Your task to perform on an android device: open app "Messenger Lite" Image 0: 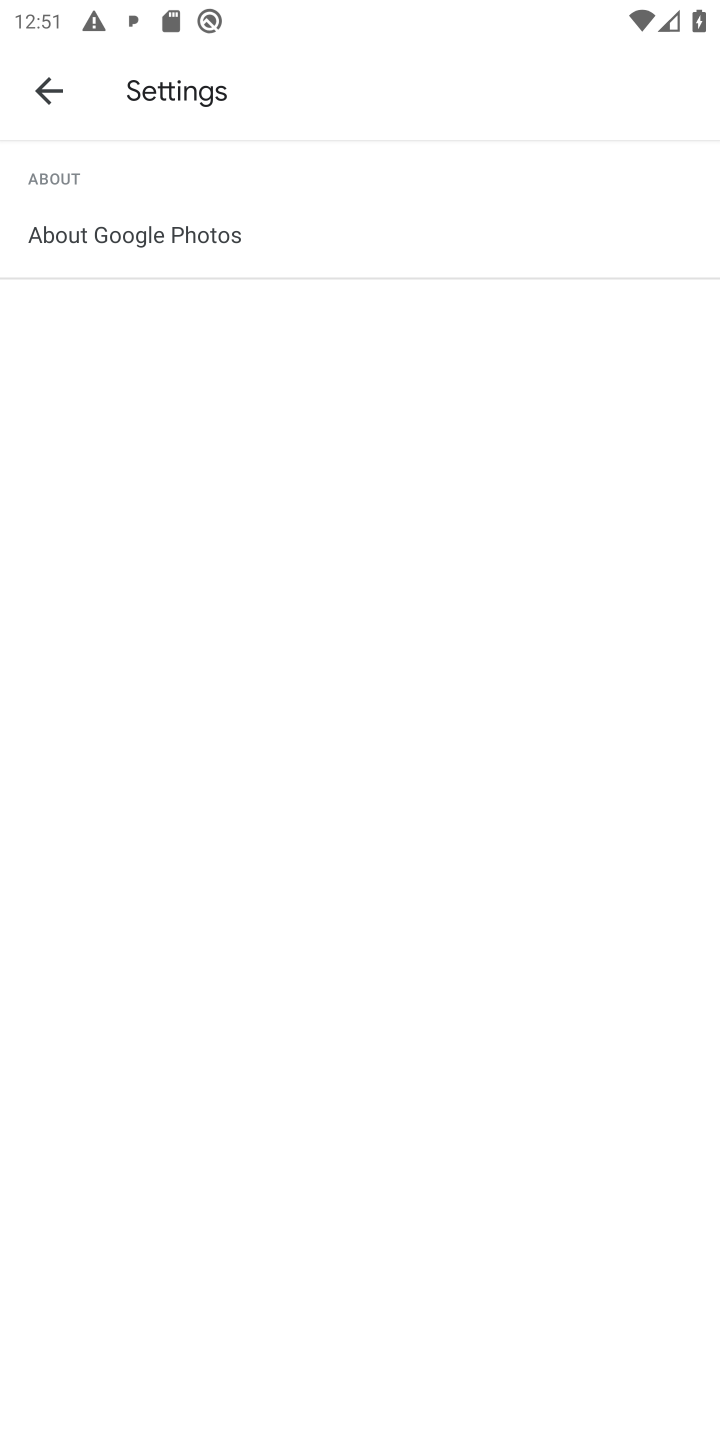
Step 0: press back button
Your task to perform on an android device: open app "Messenger Lite" Image 1: 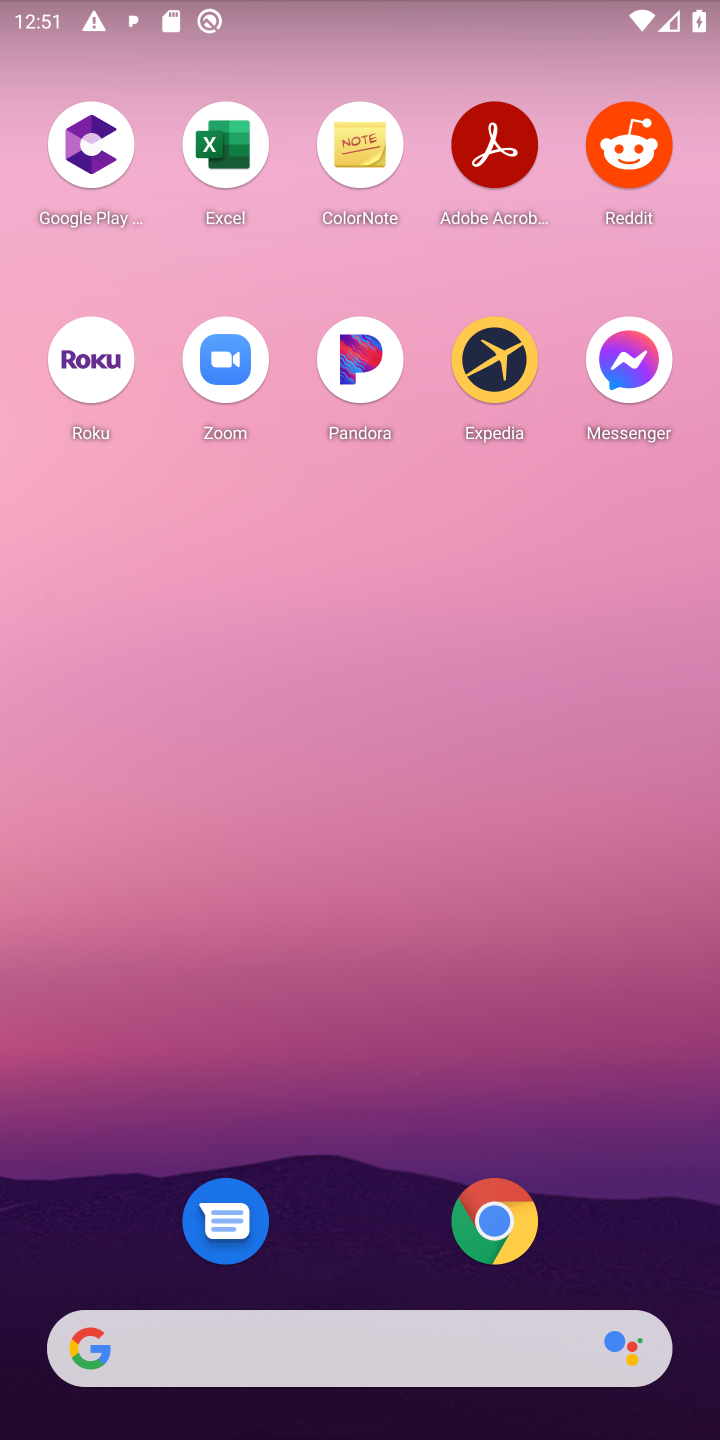
Step 1: drag from (373, 1111) to (478, 203)
Your task to perform on an android device: open app "Messenger Lite" Image 2: 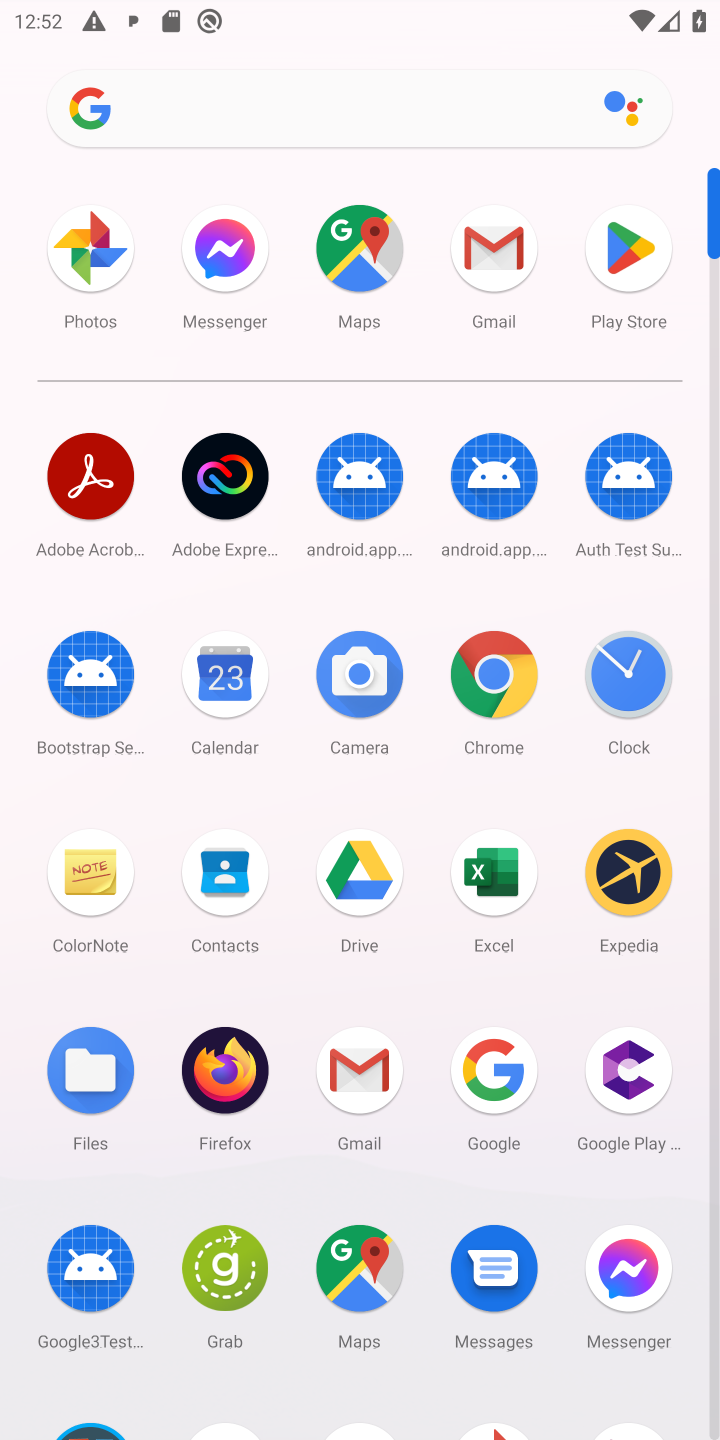
Step 2: click (615, 243)
Your task to perform on an android device: open app "Messenger Lite" Image 3: 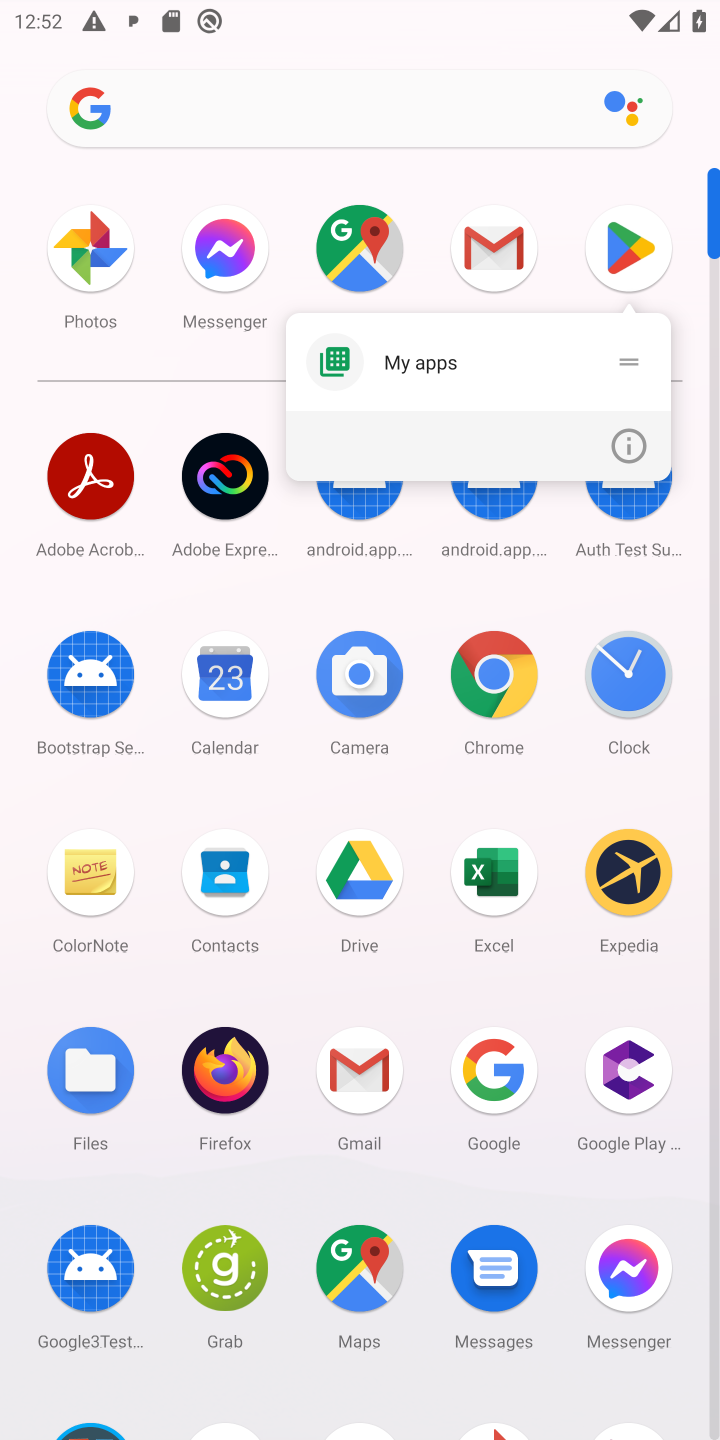
Step 3: click (620, 245)
Your task to perform on an android device: open app "Messenger Lite" Image 4: 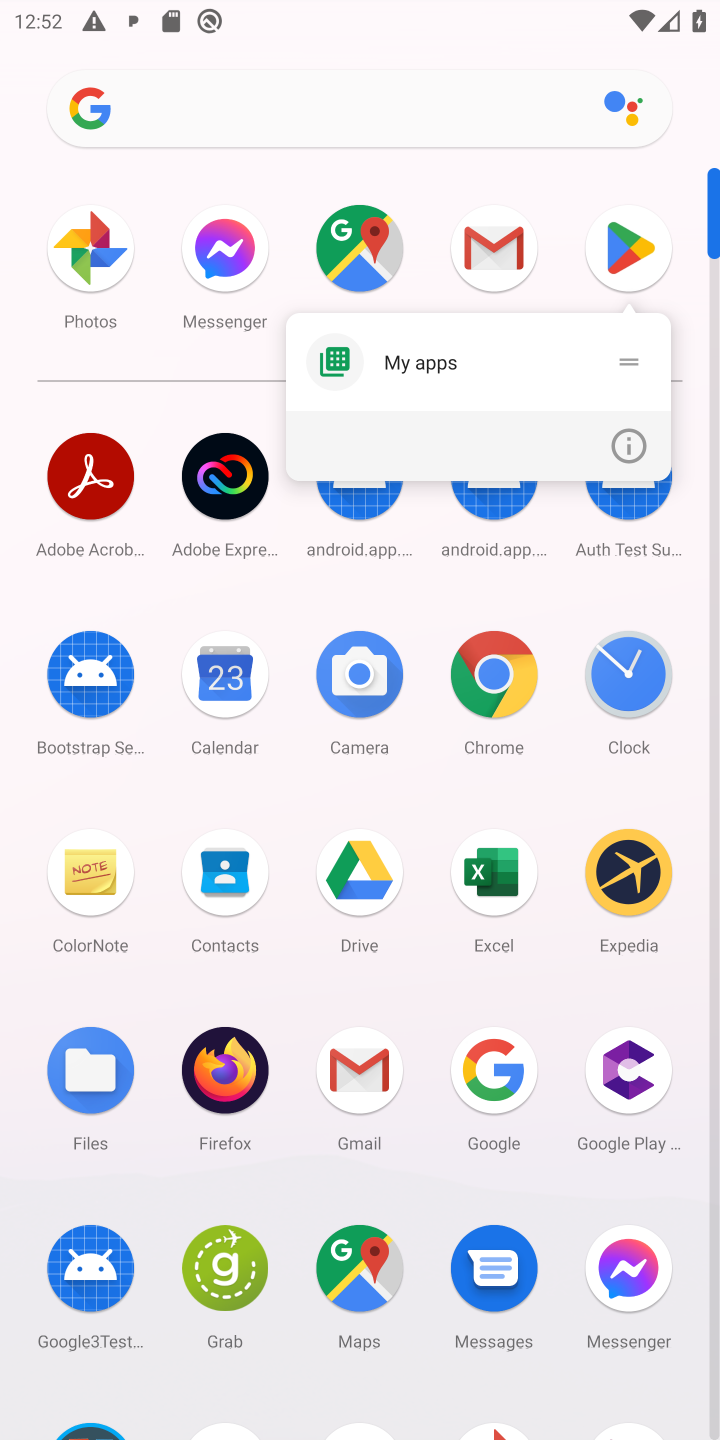
Step 4: click (621, 247)
Your task to perform on an android device: open app "Messenger Lite" Image 5: 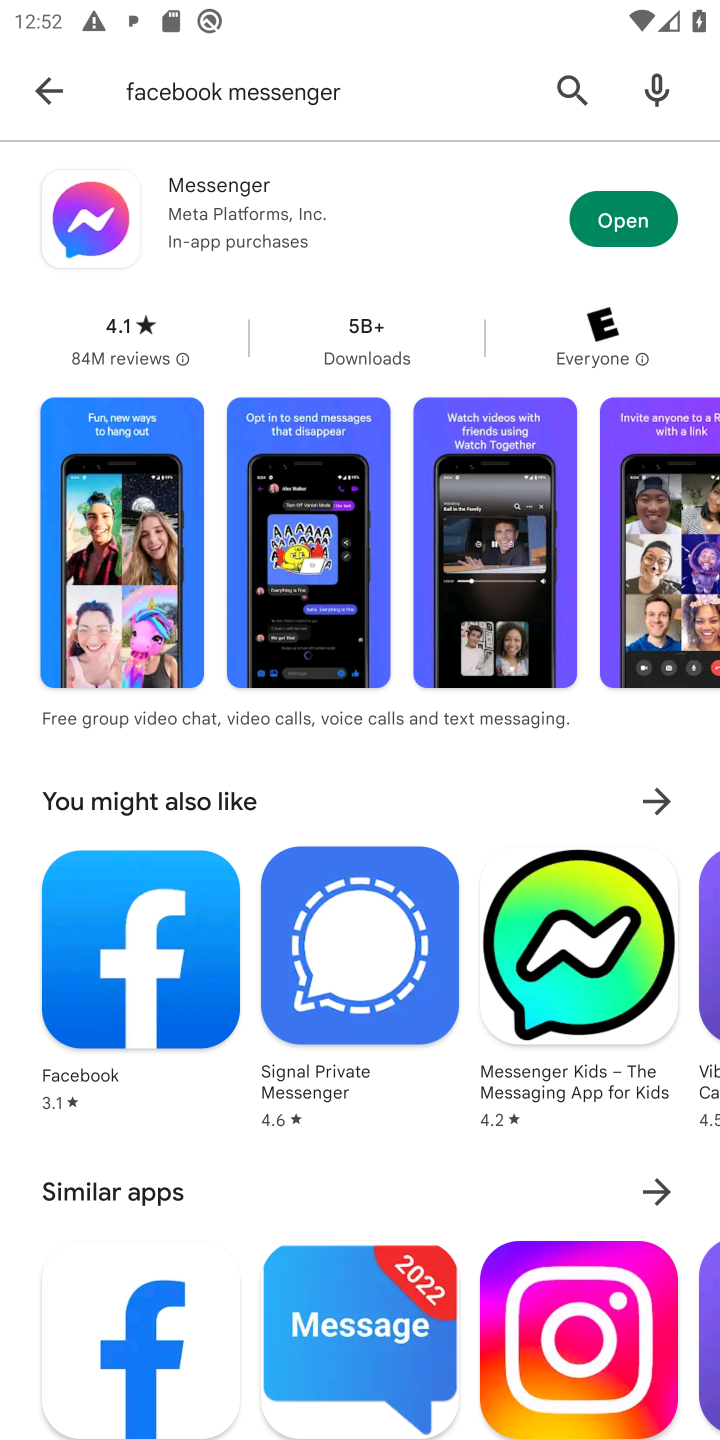
Step 5: click (564, 65)
Your task to perform on an android device: open app "Messenger Lite" Image 6: 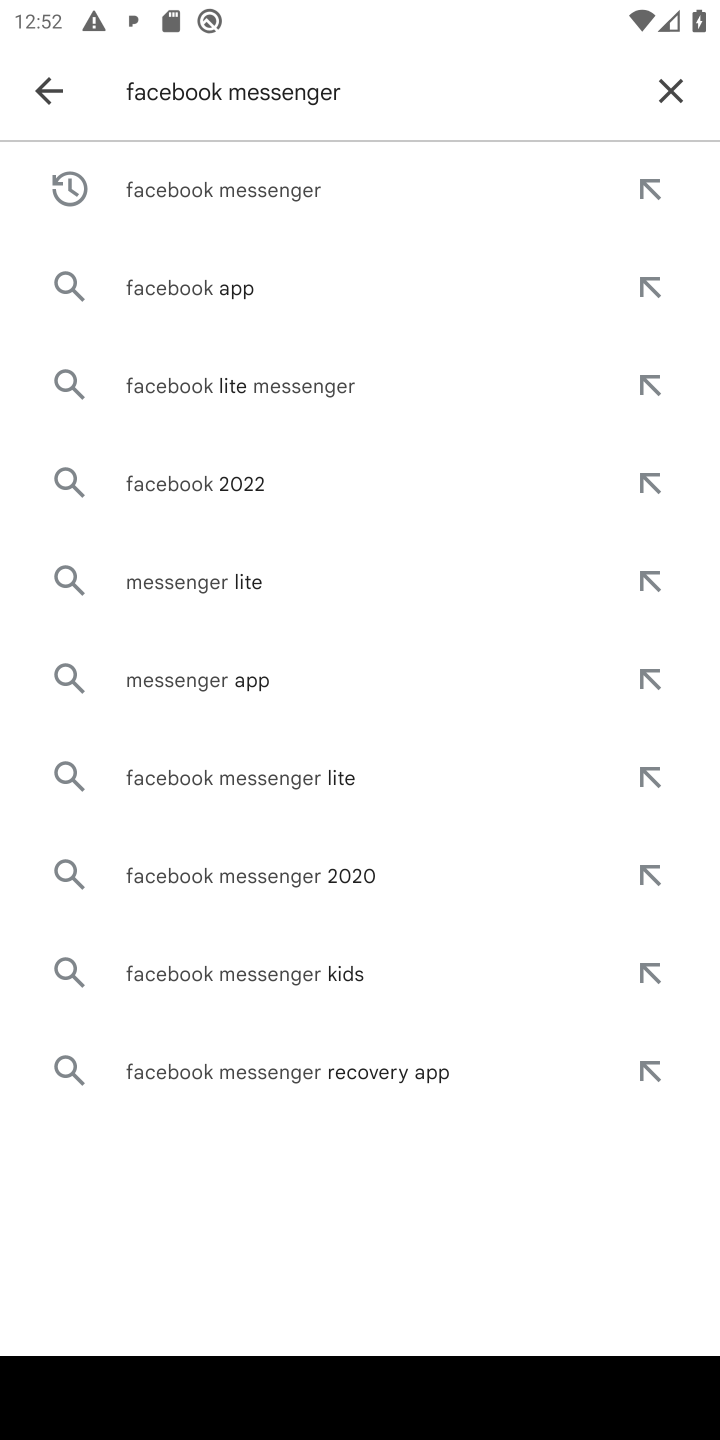
Step 6: click (663, 91)
Your task to perform on an android device: open app "Messenger Lite" Image 7: 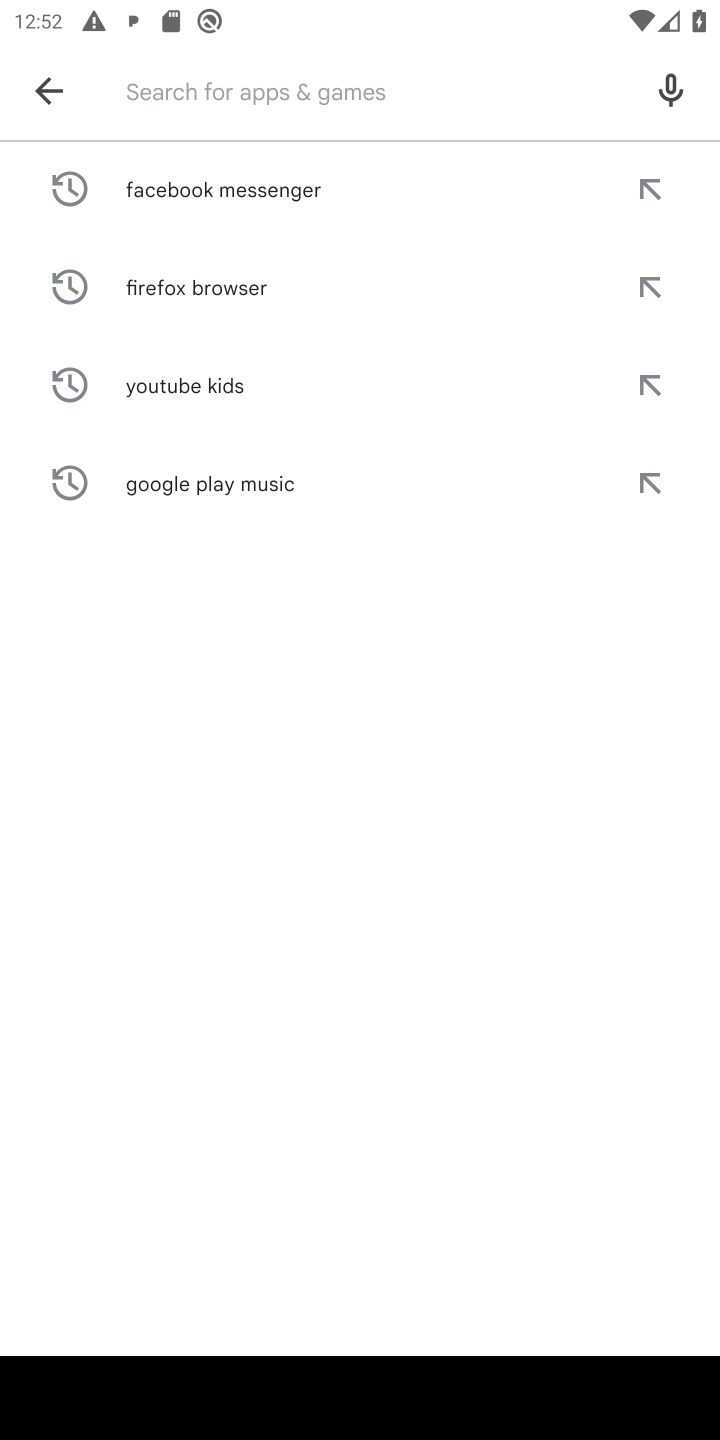
Step 7: click (190, 84)
Your task to perform on an android device: open app "Messenger Lite" Image 8: 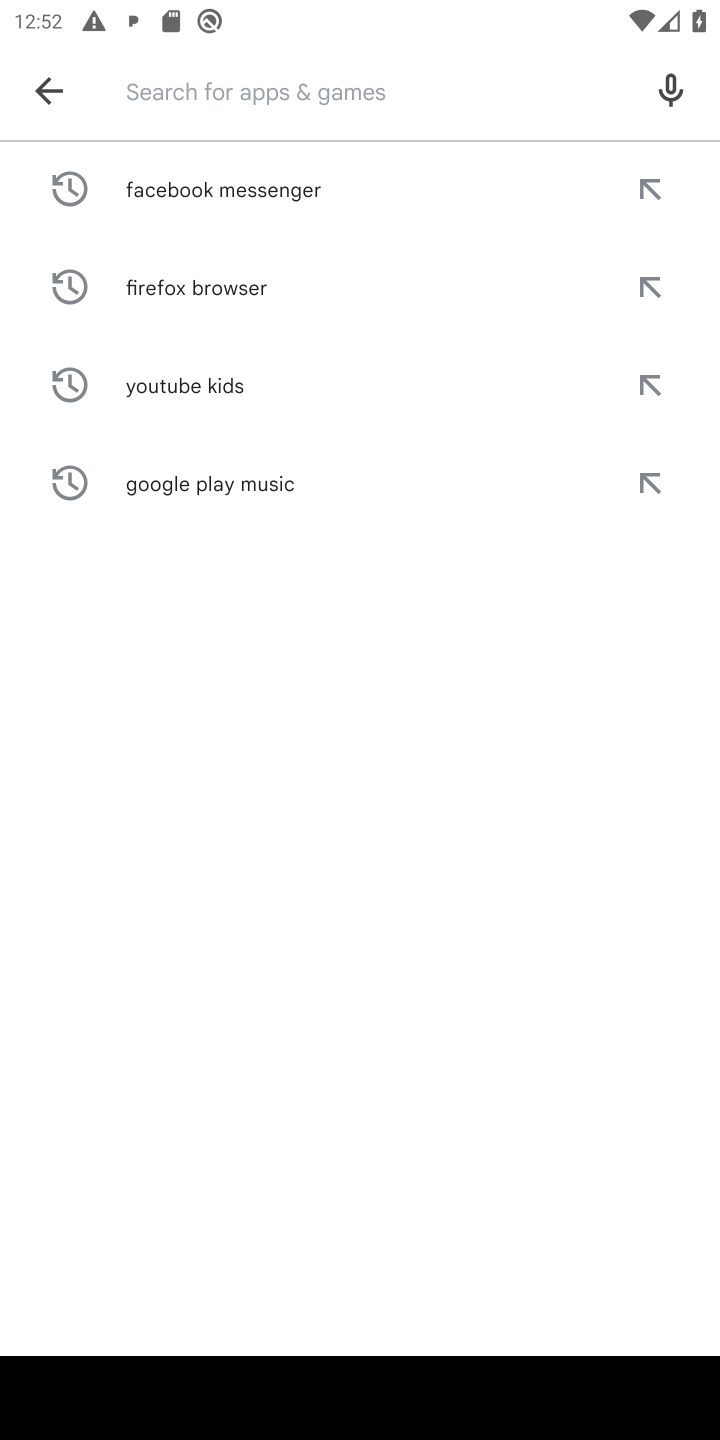
Step 8: type "Messenger Lite"
Your task to perform on an android device: open app "Messenger Lite" Image 9: 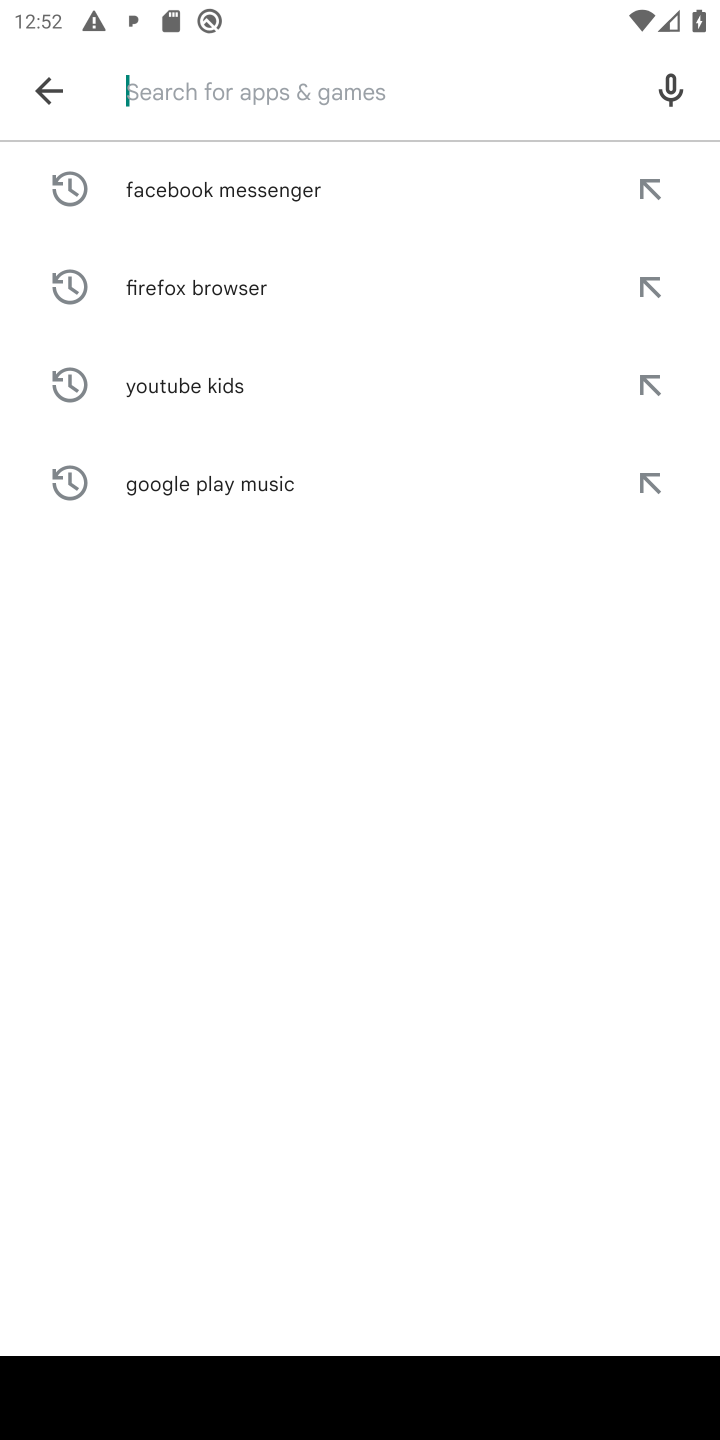
Step 9: click (324, 908)
Your task to perform on an android device: open app "Messenger Lite" Image 10: 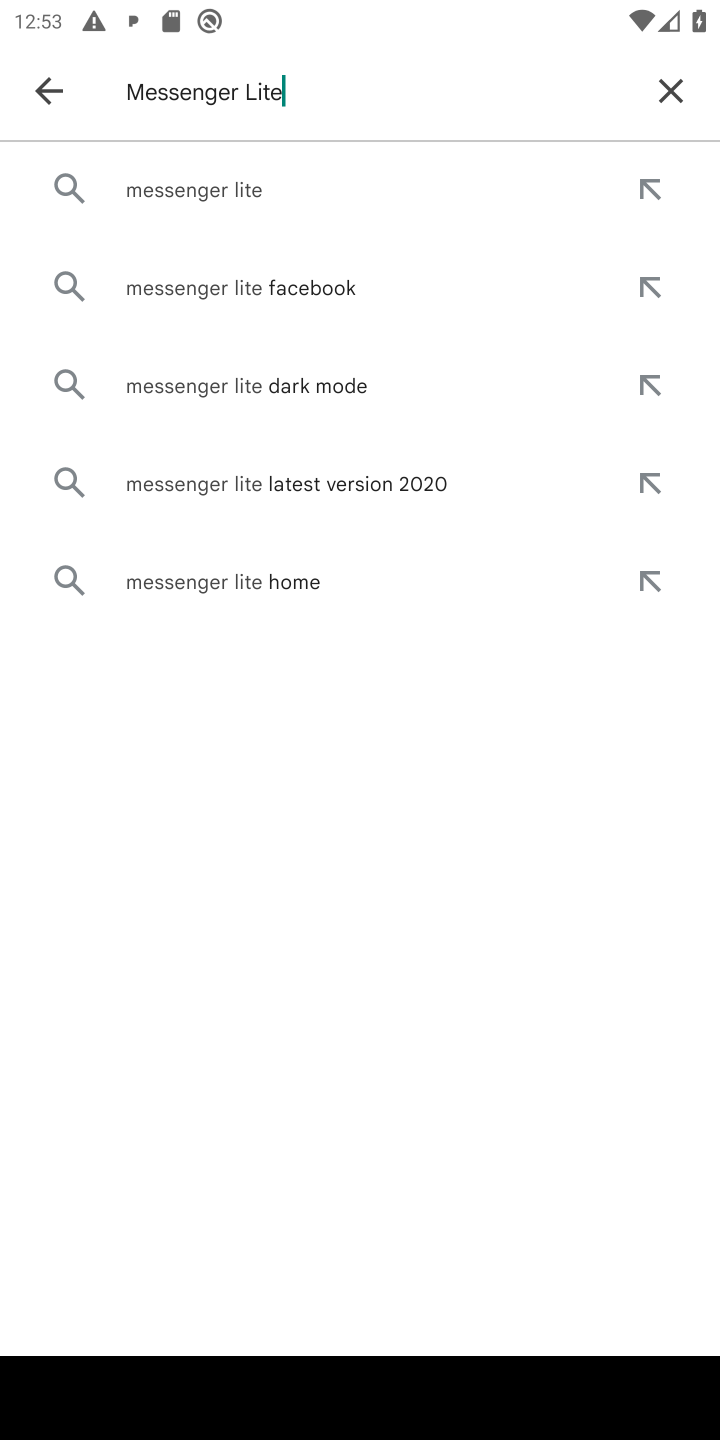
Step 10: click (233, 170)
Your task to perform on an android device: open app "Messenger Lite" Image 11: 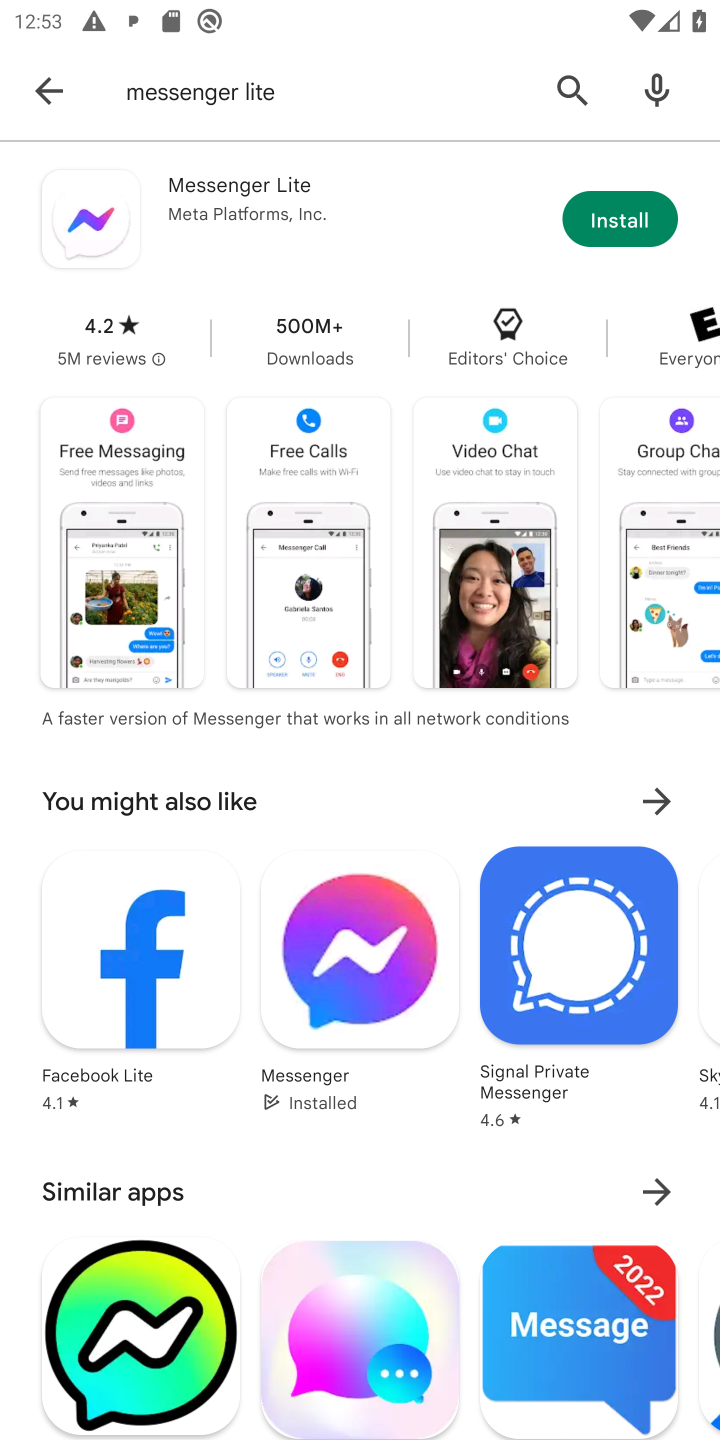
Step 11: task complete